Your task to perform on an android device: Is it going to rain this weekend? Image 0: 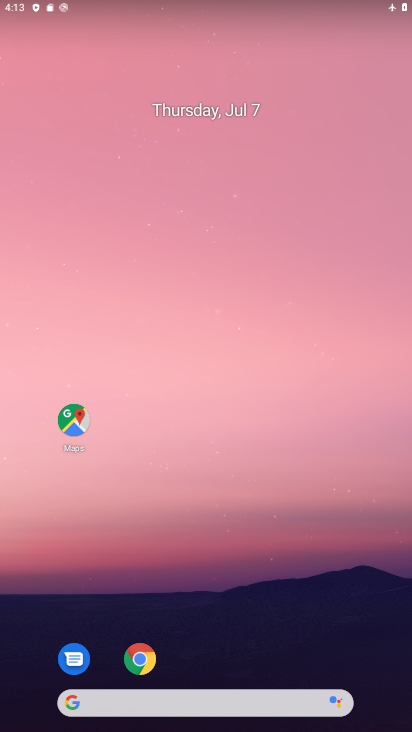
Step 0: click (245, 697)
Your task to perform on an android device: Is it going to rain this weekend? Image 1: 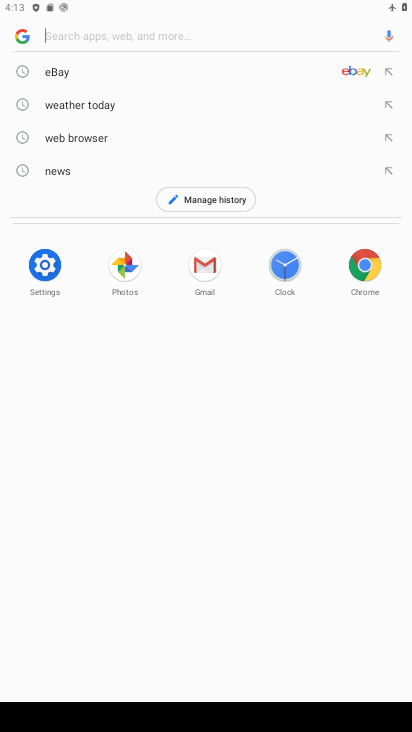
Step 1: click (184, 27)
Your task to perform on an android device: Is it going to rain this weekend? Image 2: 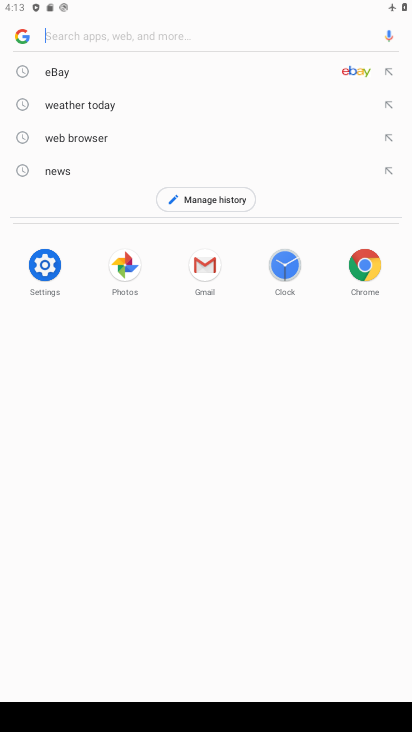
Step 2: type "weather"
Your task to perform on an android device: Is it going to rain this weekend? Image 3: 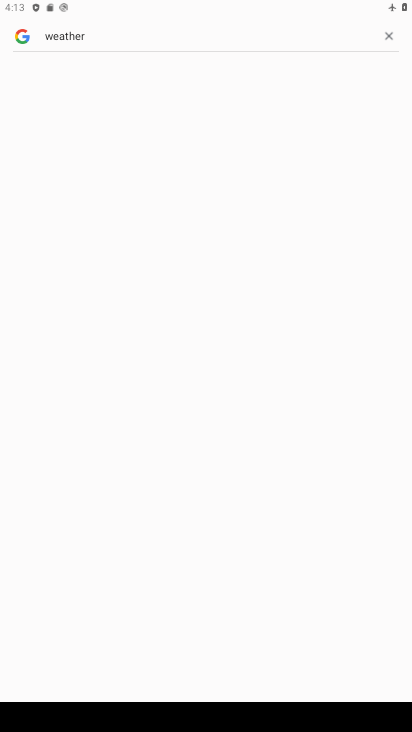
Step 3: task complete